Your task to perform on an android device: move an email to a new category in the gmail app Image 0: 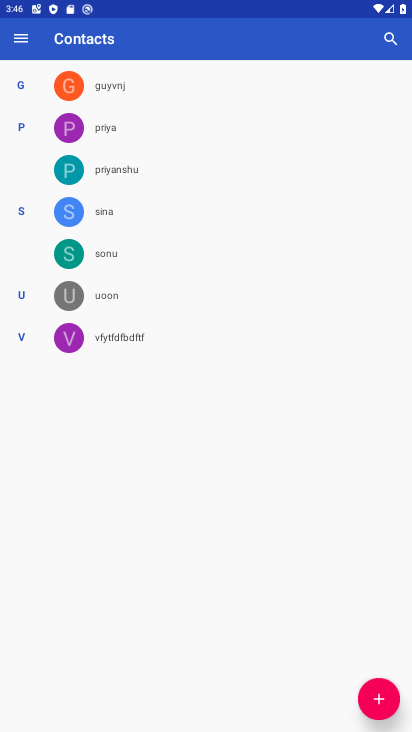
Step 0: press back button
Your task to perform on an android device: move an email to a new category in the gmail app Image 1: 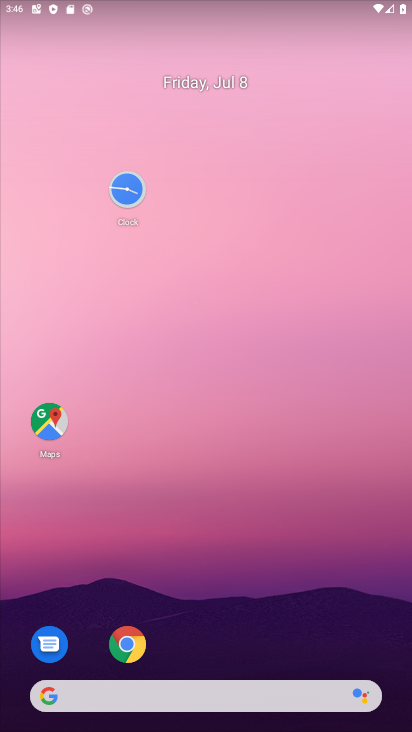
Step 1: drag from (184, 452) to (75, 160)
Your task to perform on an android device: move an email to a new category in the gmail app Image 2: 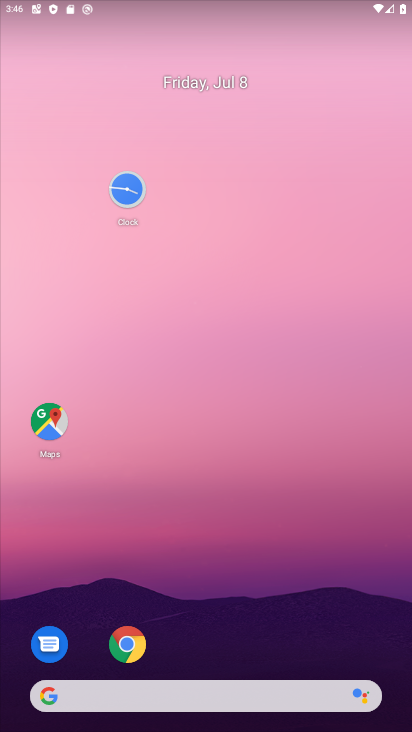
Step 2: drag from (255, 576) to (125, 84)
Your task to perform on an android device: move an email to a new category in the gmail app Image 3: 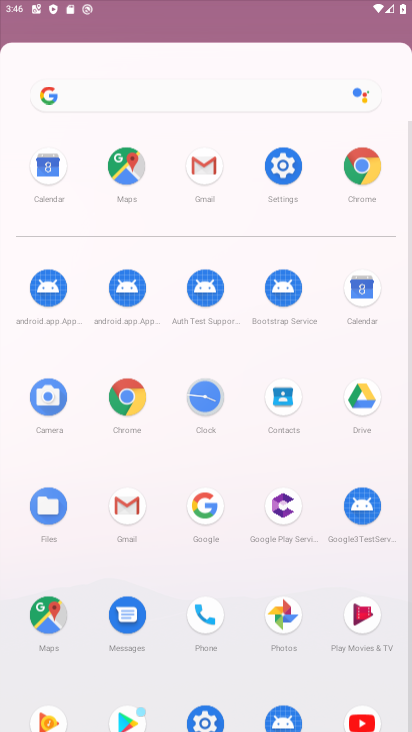
Step 3: click (160, 7)
Your task to perform on an android device: move an email to a new category in the gmail app Image 4: 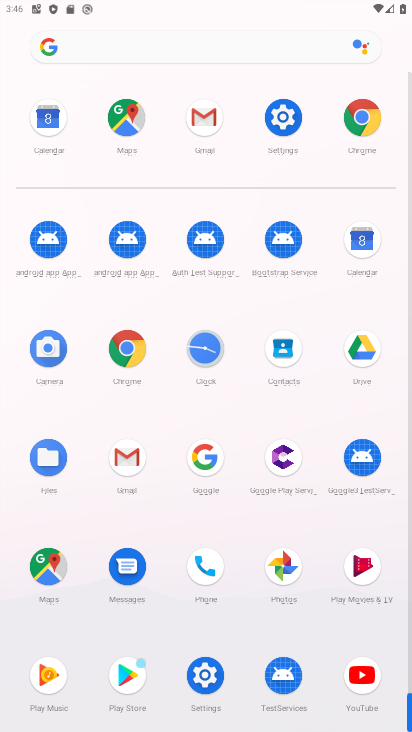
Step 4: drag from (142, 62) to (138, 3)
Your task to perform on an android device: move an email to a new category in the gmail app Image 5: 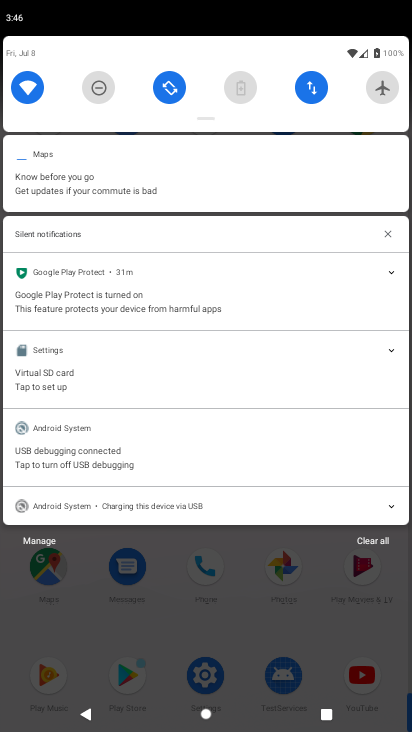
Step 5: drag from (221, 406) to (155, 158)
Your task to perform on an android device: move an email to a new category in the gmail app Image 6: 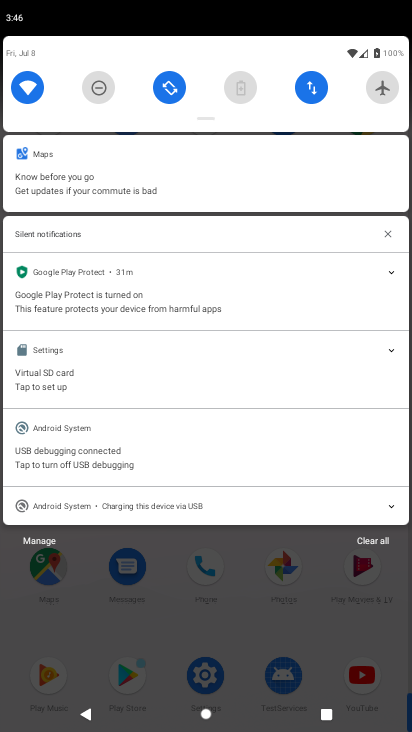
Step 6: drag from (323, 588) to (209, 2)
Your task to perform on an android device: move an email to a new category in the gmail app Image 7: 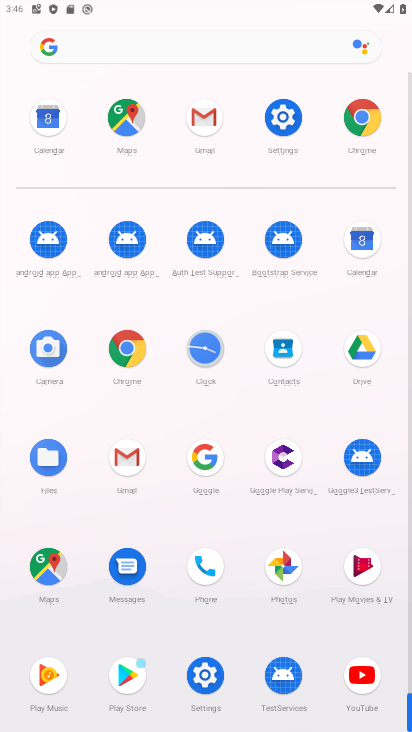
Step 7: press back button
Your task to perform on an android device: move an email to a new category in the gmail app Image 8: 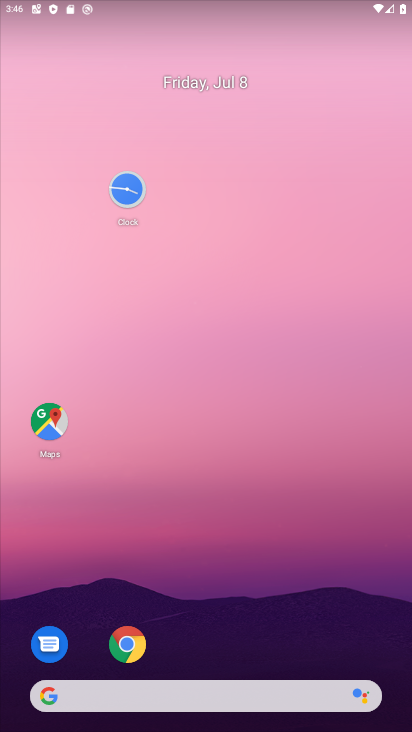
Step 8: drag from (239, 687) to (98, 69)
Your task to perform on an android device: move an email to a new category in the gmail app Image 9: 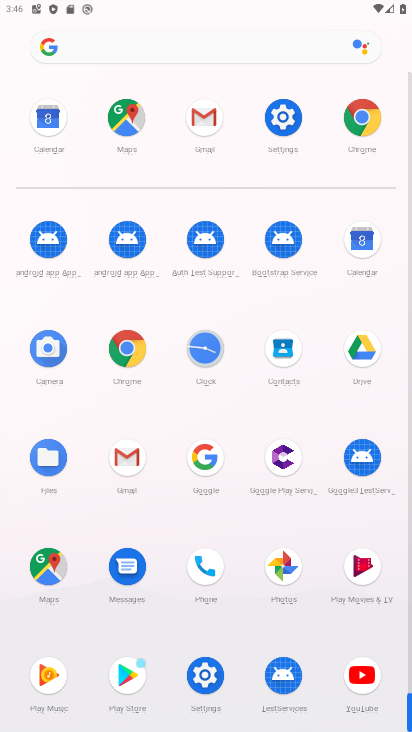
Step 9: click (125, 465)
Your task to perform on an android device: move an email to a new category in the gmail app Image 10: 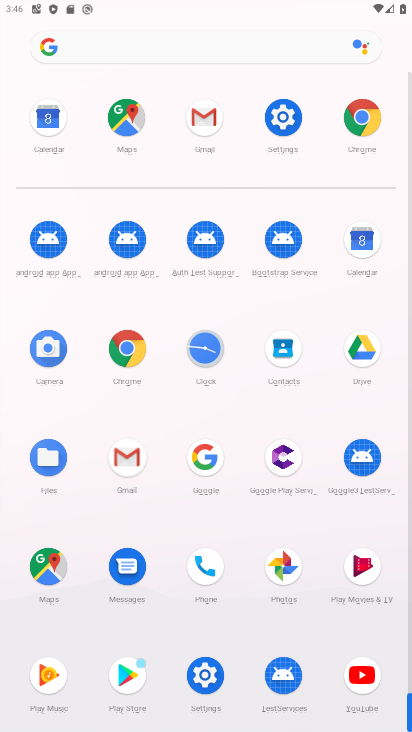
Step 10: click (125, 464)
Your task to perform on an android device: move an email to a new category in the gmail app Image 11: 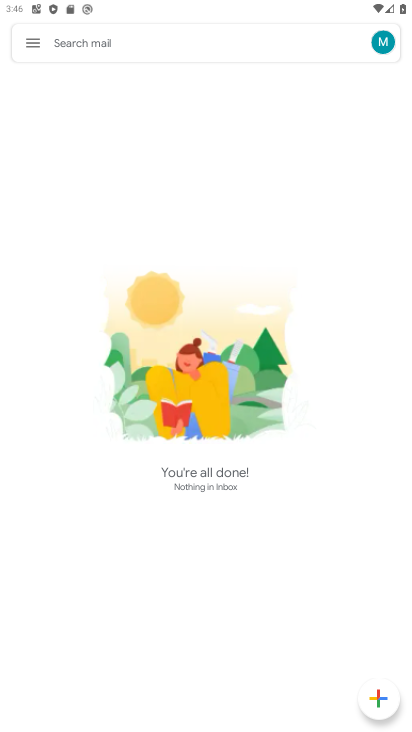
Step 11: click (39, 57)
Your task to perform on an android device: move an email to a new category in the gmail app Image 12: 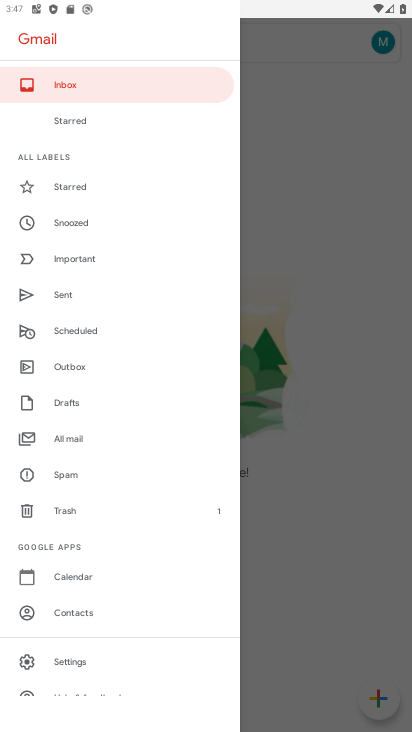
Step 12: click (75, 442)
Your task to perform on an android device: move an email to a new category in the gmail app Image 13: 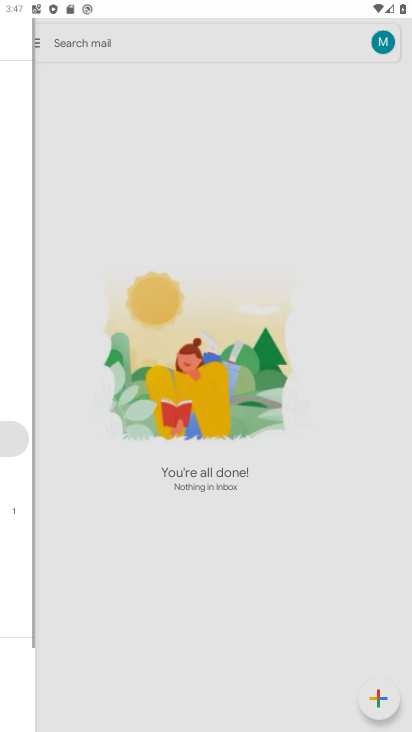
Step 13: click (75, 442)
Your task to perform on an android device: move an email to a new category in the gmail app Image 14: 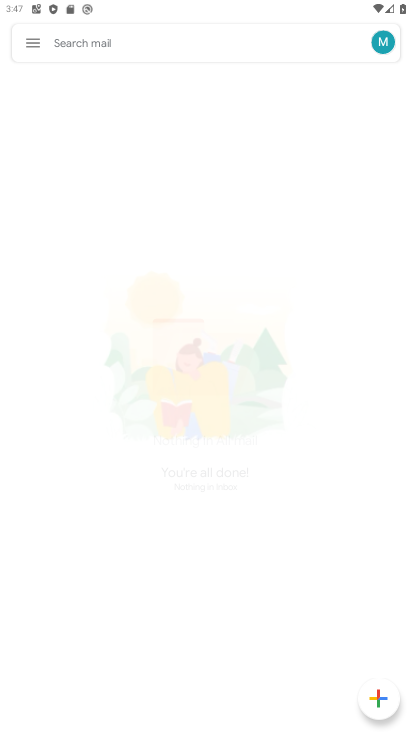
Step 14: click (75, 442)
Your task to perform on an android device: move an email to a new category in the gmail app Image 15: 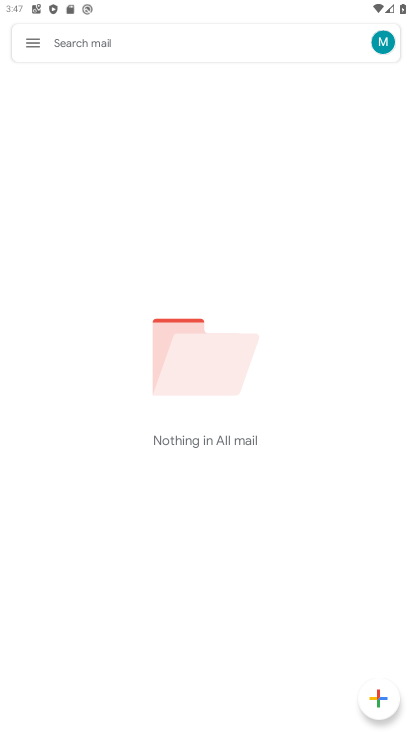
Step 15: click (75, 442)
Your task to perform on an android device: move an email to a new category in the gmail app Image 16: 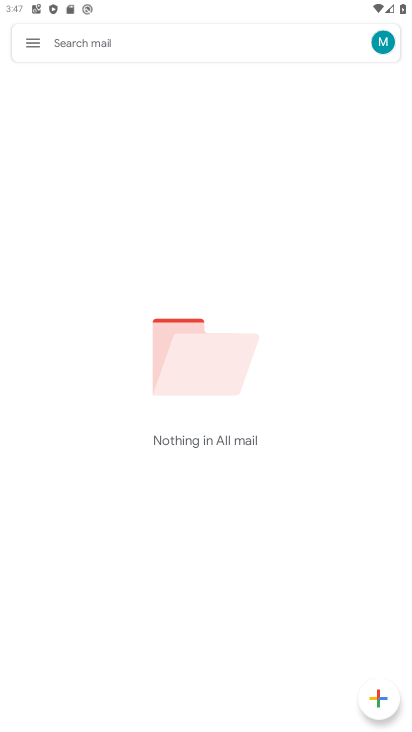
Step 16: task complete